Your task to perform on an android device: Do I have any events today? Image 0: 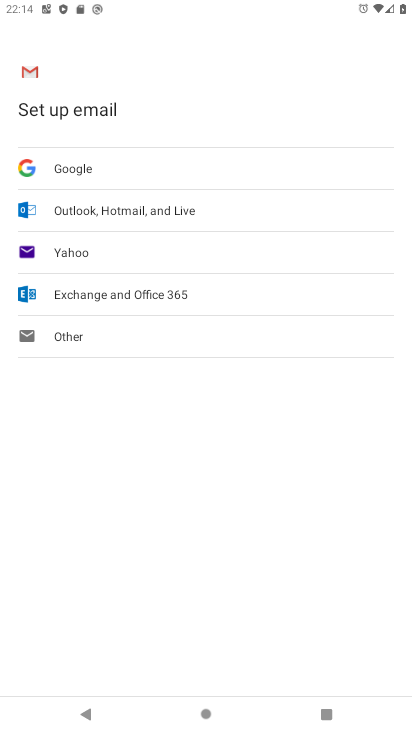
Step 0: press home button
Your task to perform on an android device: Do I have any events today? Image 1: 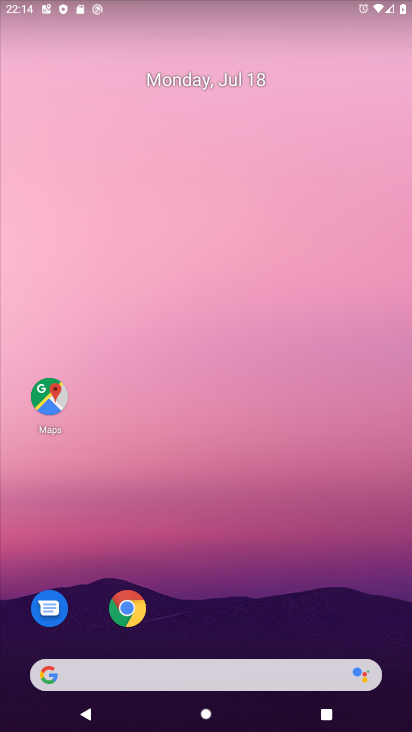
Step 1: drag from (9, 712) to (388, 92)
Your task to perform on an android device: Do I have any events today? Image 2: 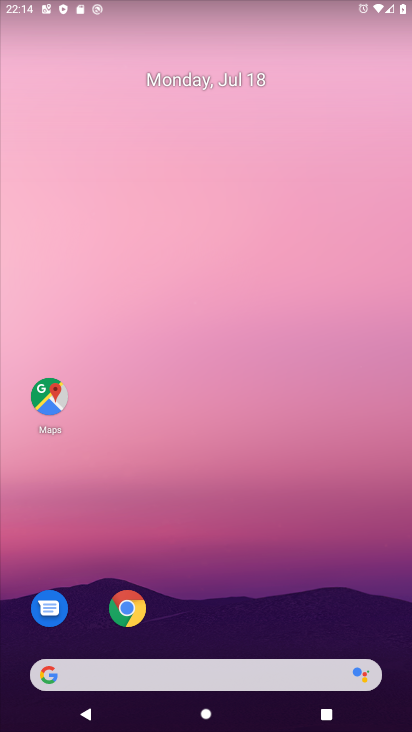
Step 2: drag from (15, 706) to (352, 11)
Your task to perform on an android device: Do I have any events today? Image 3: 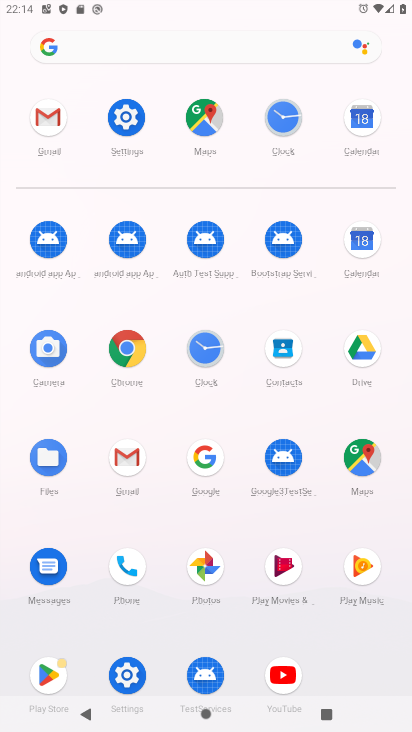
Step 3: click (364, 248)
Your task to perform on an android device: Do I have any events today? Image 4: 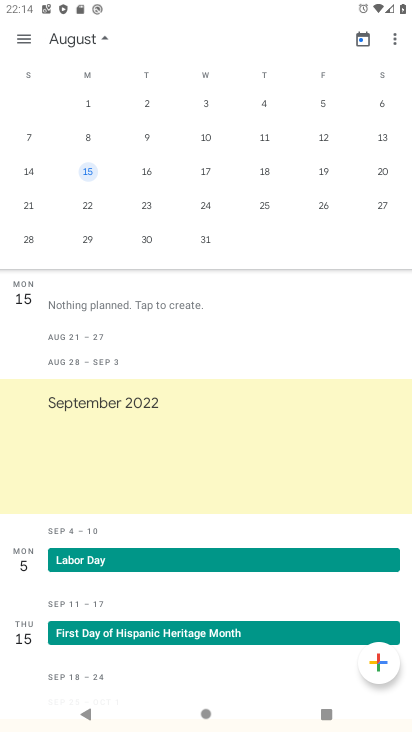
Step 4: task complete